Your task to perform on an android device: toggle notifications settings in the gmail app Image 0: 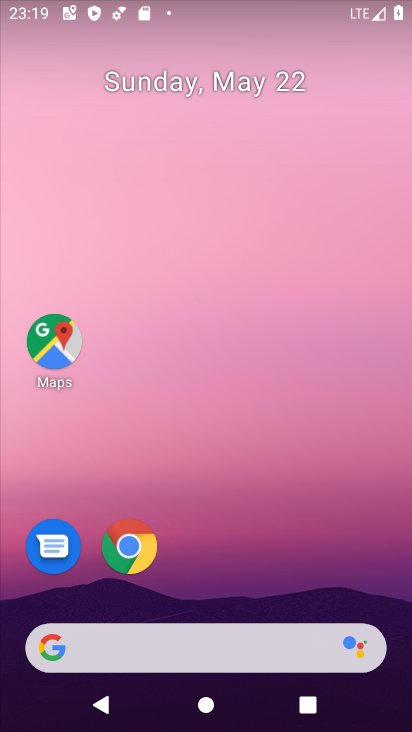
Step 0: click (289, 69)
Your task to perform on an android device: toggle notifications settings in the gmail app Image 1: 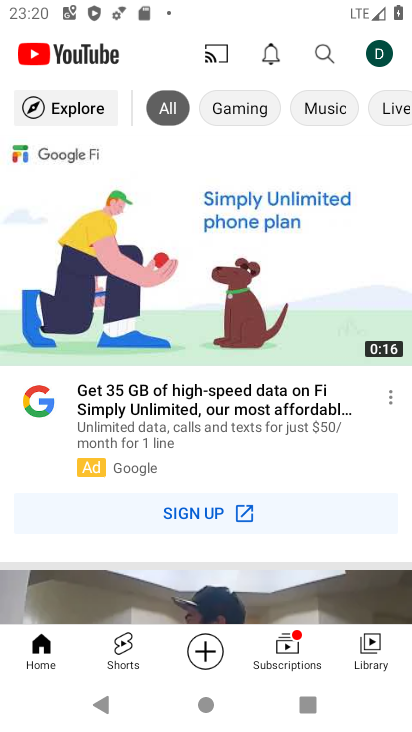
Step 1: press home button
Your task to perform on an android device: toggle notifications settings in the gmail app Image 2: 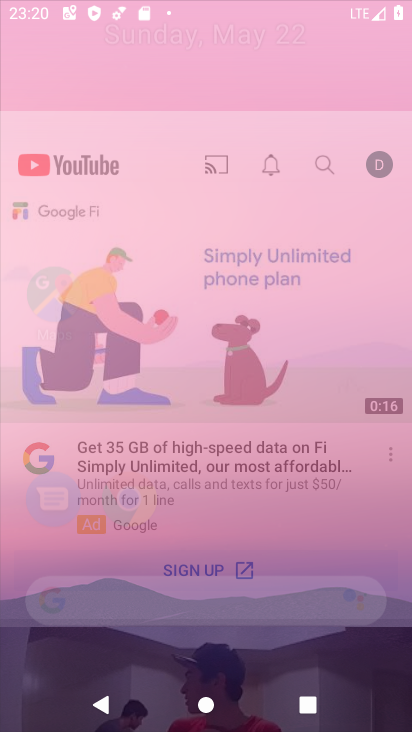
Step 2: drag from (133, 590) to (251, 9)
Your task to perform on an android device: toggle notifications settings in the gmail app Image 3: 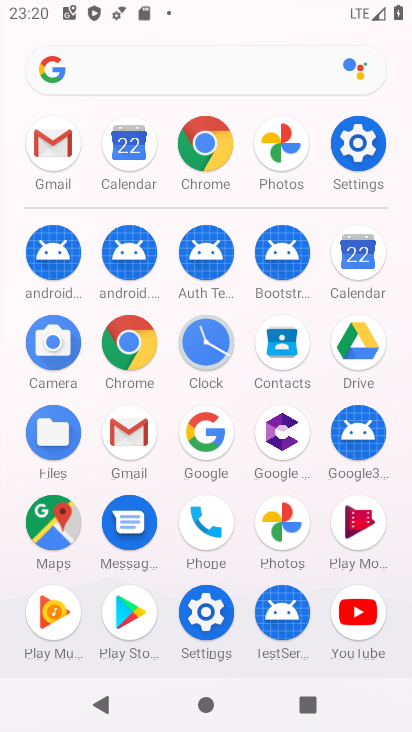
Step 3: click (113, 98)
Your task to perform on an android device: toggle notifications settings in the gmail app Image 4: 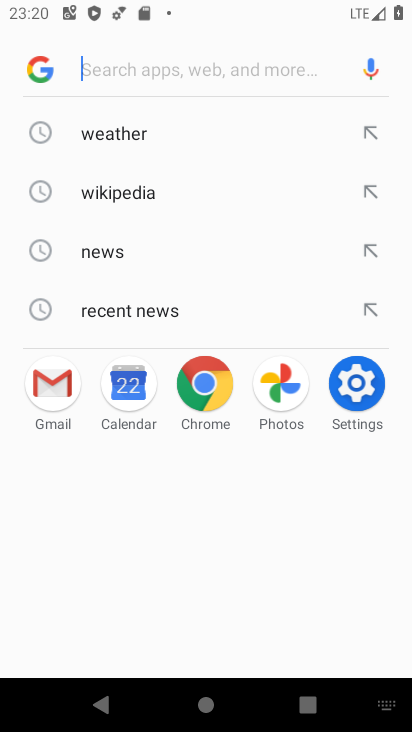
Step 4: press home button
Your task to perform on an android device: toggle notifications settings in the gmail app Image 5: 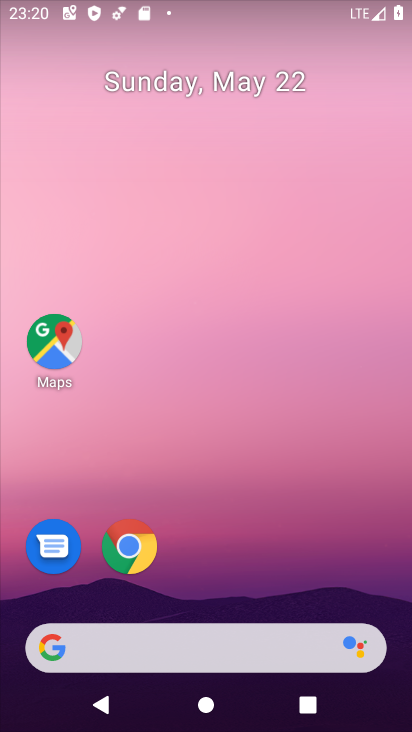
Step 5: drag from (181, 565) to (229, 293)
Your task to perform on an android device: toggle notifications settings in the gmail app Image 6: 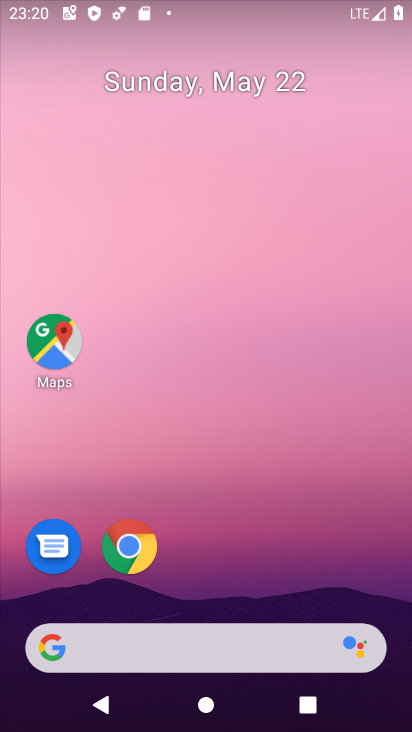
Step 6: drag from (193, 584) to (290, 13)
Your task to perform on an android device: toggle notifications settings in the gmail app Image 7: 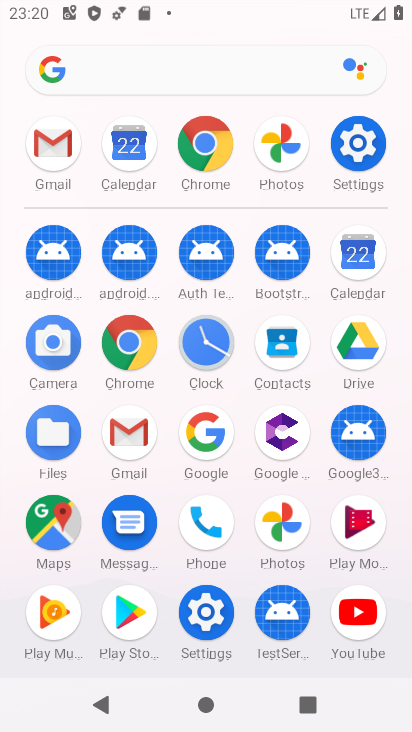
Step 7: click (122, 438)
Your task to perform on an android device: toggle notifications settings in the gmail app Image 8: 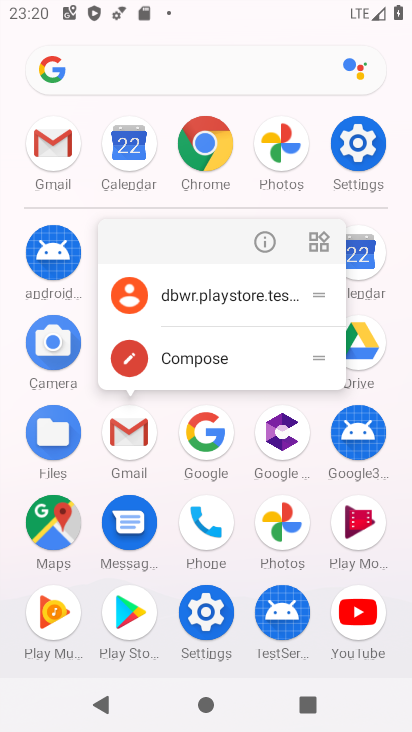
Step 8: click (199, 288)
Your task to perform on an android device: toggle notifications settings in the gmail app Image 9: 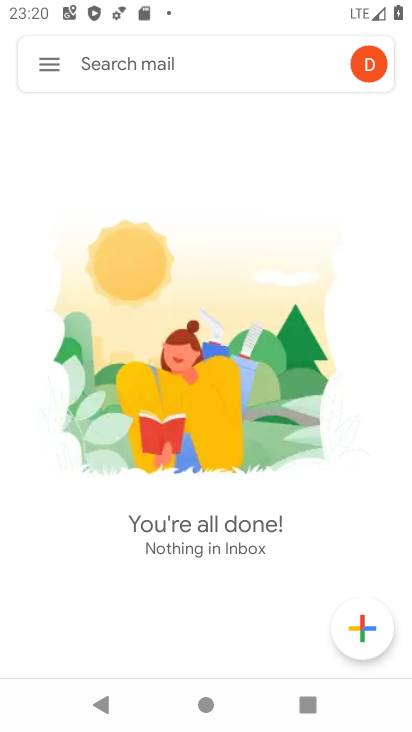
Step 9: click (53, 73)
Your task to perform on an android device: toggle notifications settings in the gmail app Image 10: 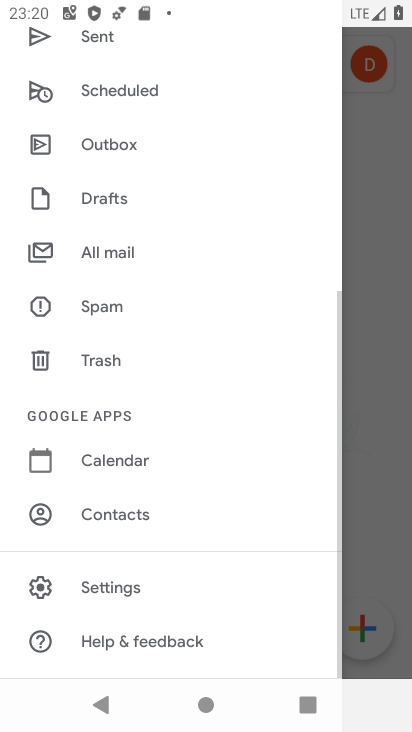
Step 10: drag from (129, 211) to (138, 646)
Your task to perform on an android device: toggle notifications settings in the gmail app Image 11: 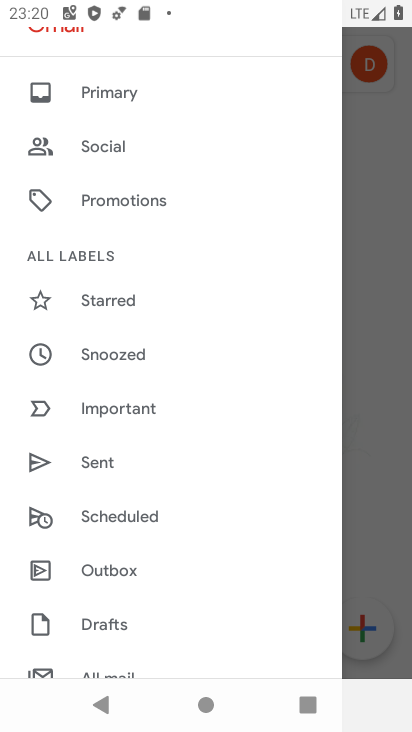
Step 11: drag from (181, 489) to (241, 172)
Your task to perform on an android device: toggle notifications settings in the gmail app Image 12: 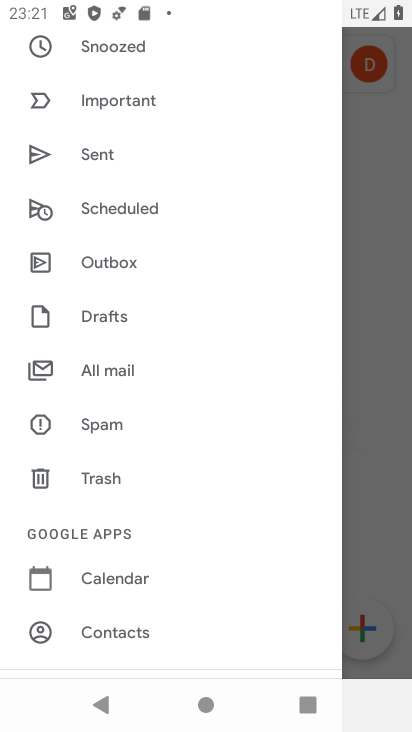
Step 12: drag from (169, 236) to (122, 680)
Your task to perform on an android device: toggle notifications settings in the gmail app Image 13: 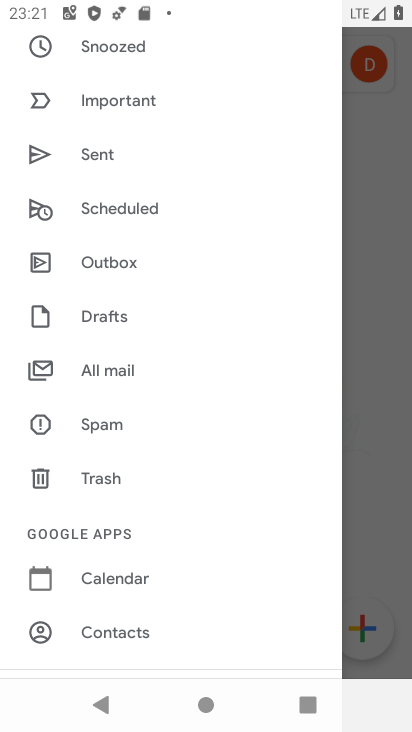
Step 13: drag from (125, 613) to (182, 247)
Your task to perform on an android device: toggle notifications settings in the gmail app Image 14: 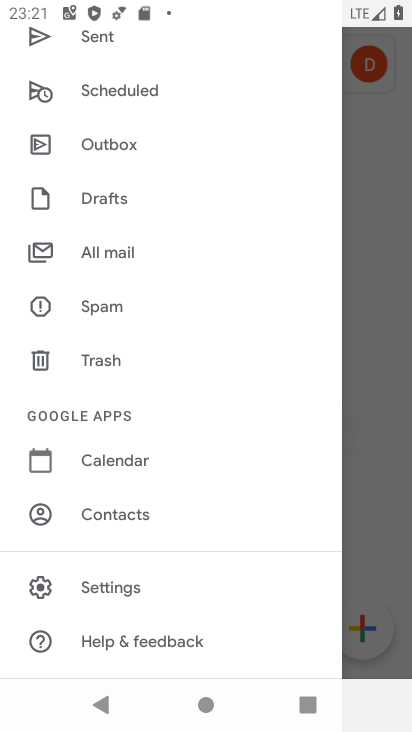
Step 14: click (126, 575)
Your task to perform on an android device: toggle notifications settings in the gmail app Image 15: 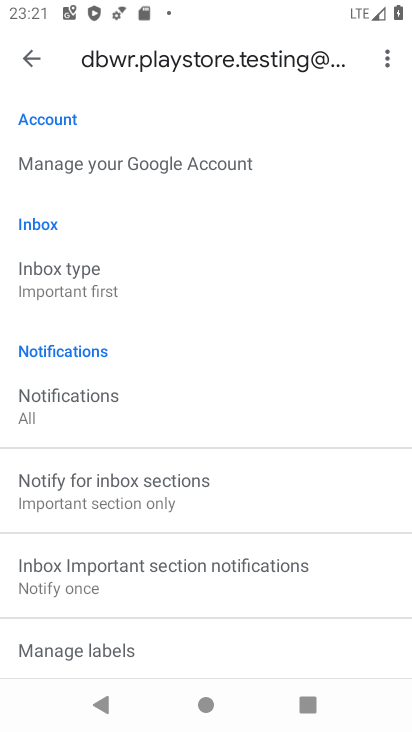
Step 15: drag from (140, 607) to (294, 195)
Your task to perform on an android device: toggle notifications settings in the gmail app Image 16: 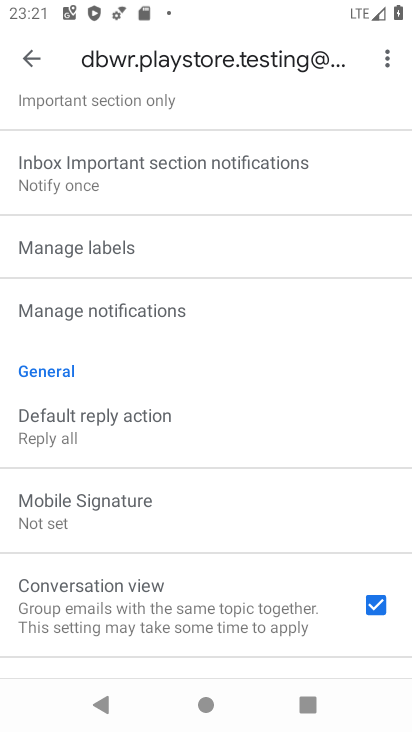
Step 16: click (158, 316)
Your task to perform on an android device: toggle notifications settings in the gmail app Image 17: 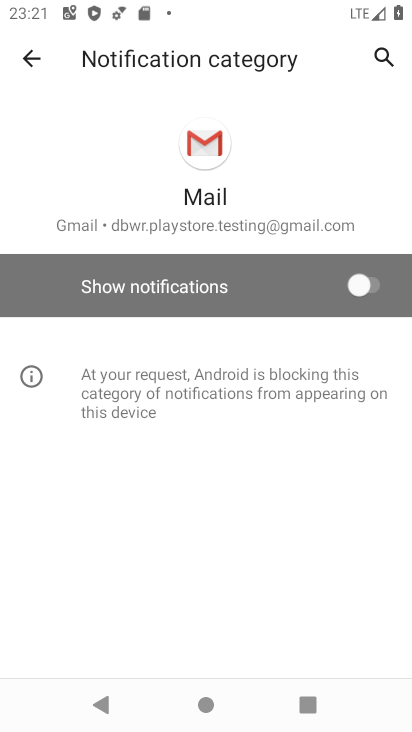
Step 17: click (360, 281)
Your task to perform on an android device: toggle notifications settings in the gmail app Image 18: 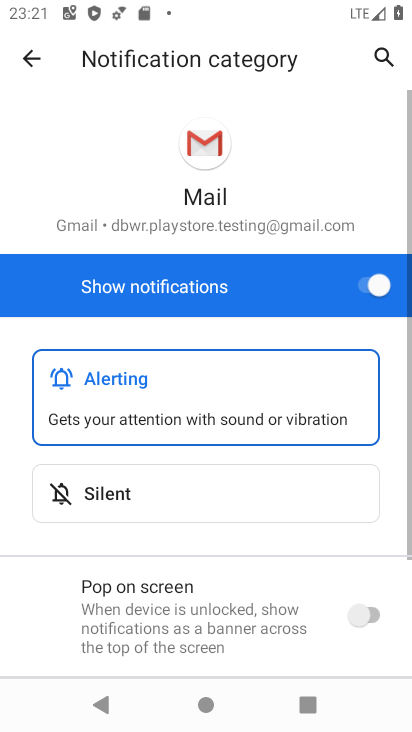
Step 18: task complete